Your task to perform on an android device: Toggle the flashlight Image 0: 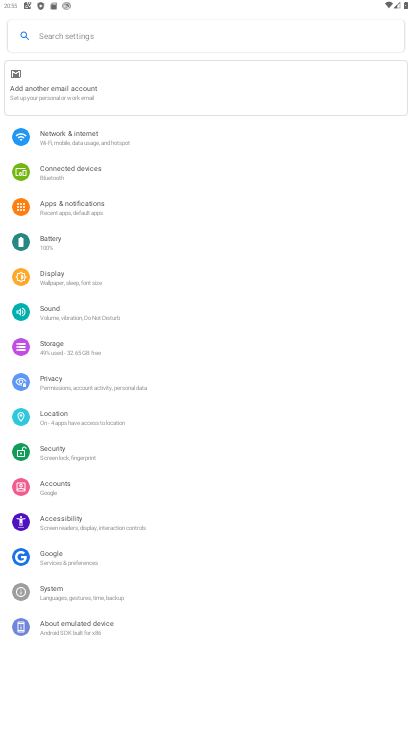
Step 0: click (127, 35)
Your task to perform on an android device: Toggle the flashlight Image 1: 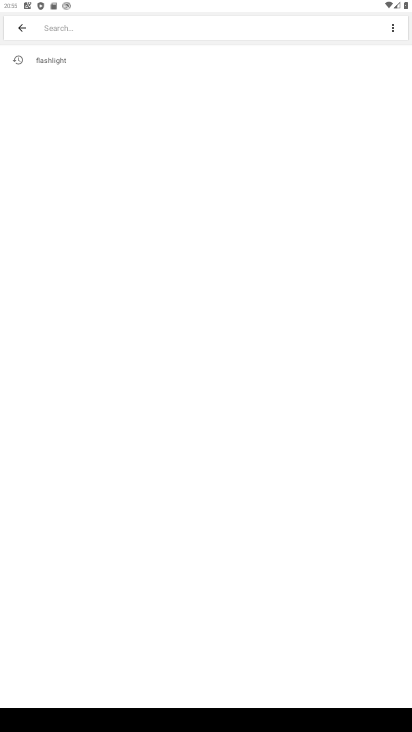
Step 1: type "flashlight"
Your task to perform on an android device: Toggle the flashlight Image 2: 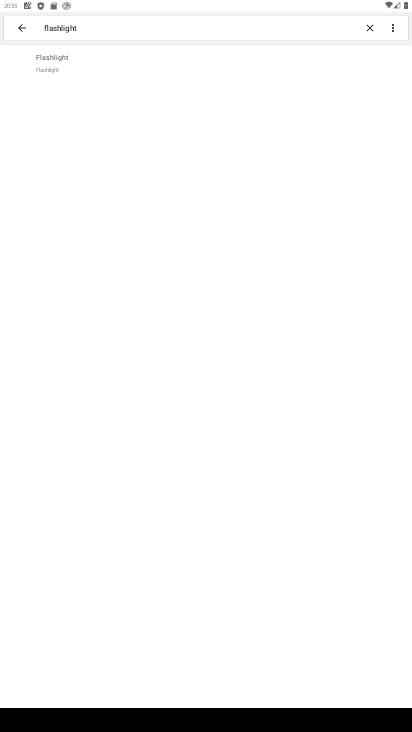
Step 2: click (65, 57)
Your task to perform on an android device: Toggle the flashlight Image 3: 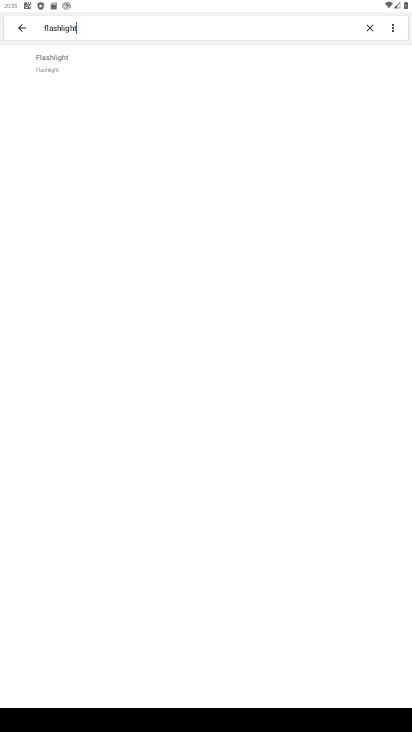
Step 3: click (65, 57)
Your task to perform on an android device: Toggle the flashlight Image 4: 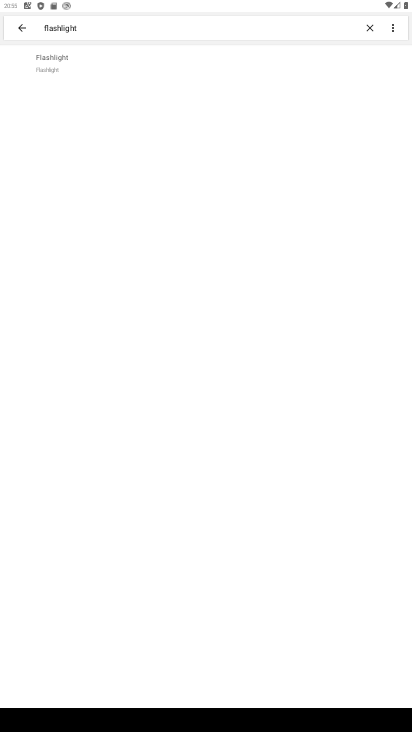
Step 4: task complete